Your task to perform on an android device: Show me recent news Image 0: 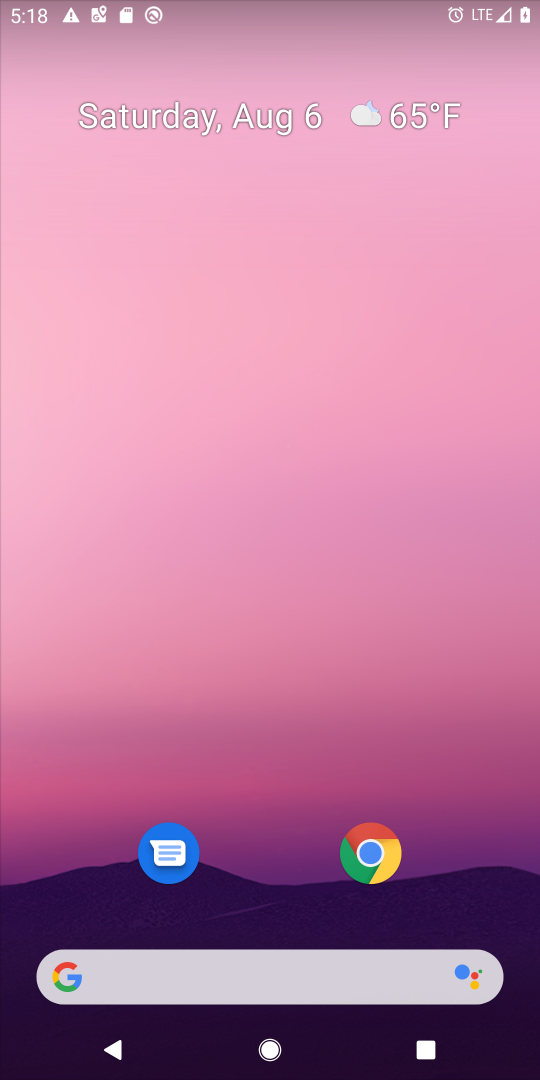
Step 0: click (238, 975)
Your task to perform on an android device: Show me recent news Image 1: 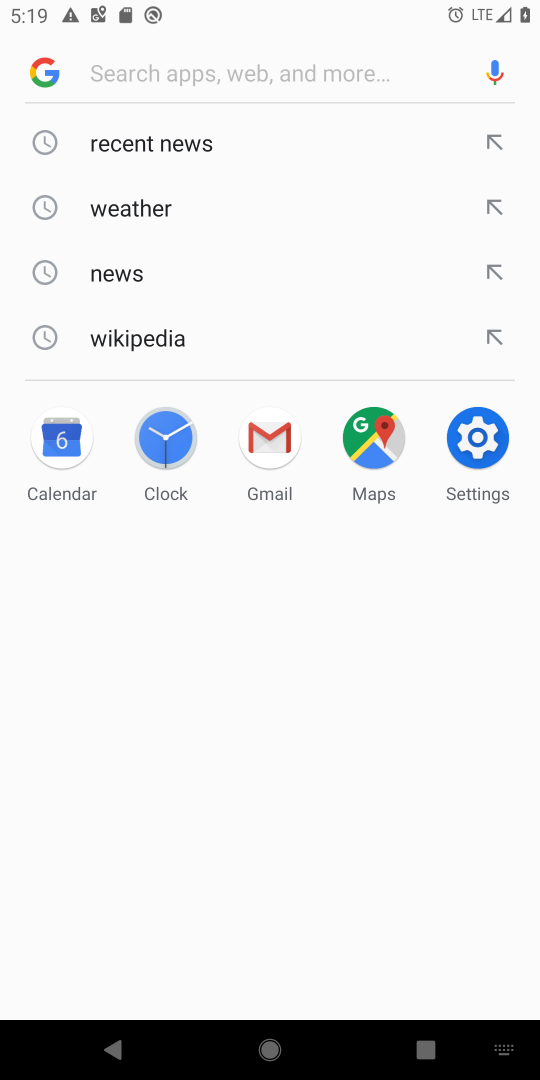
Step 1: click (162, 143)
Your task to perform on an android device: Show me recent news Image 2: 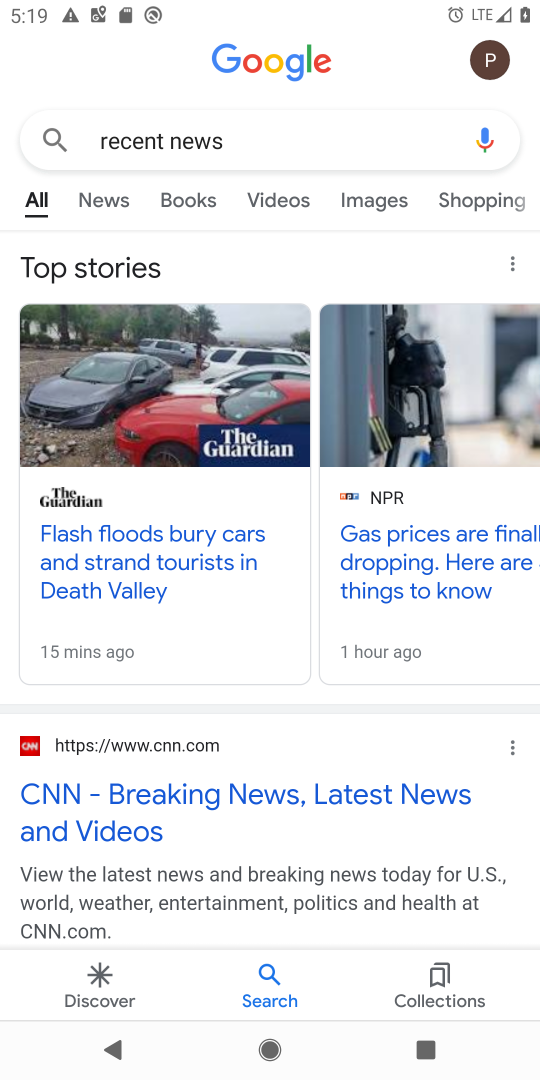
Step 2: task complete